Your task to perform on an android device: toggle data saver in the chrome app Image 0: 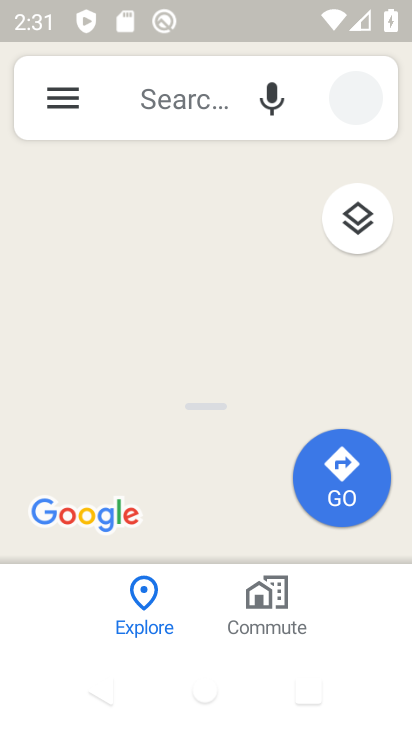
Step 0: press home button
Your task to perform on an android device: toggle data saver in the chrome app Image 1: 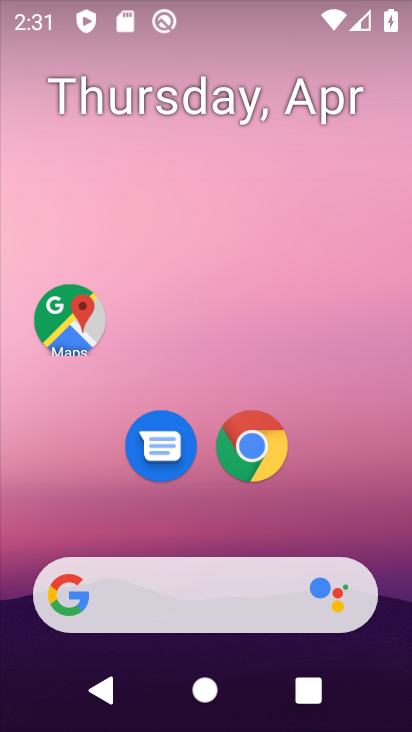
Step 1: drag from (189, 636) to (192, 191)
Your task to perform on an android device: toggle data saver in the chrome app Image 2: 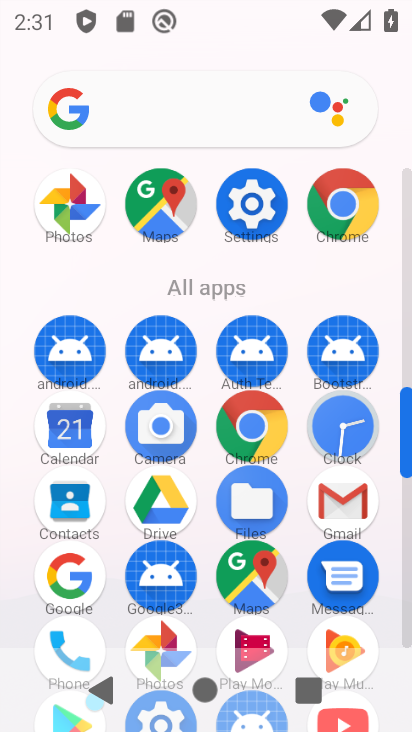
Step 2: click (341, 194)
Your task to perform on an android device: toggle data saver in the chrome app Image 3: 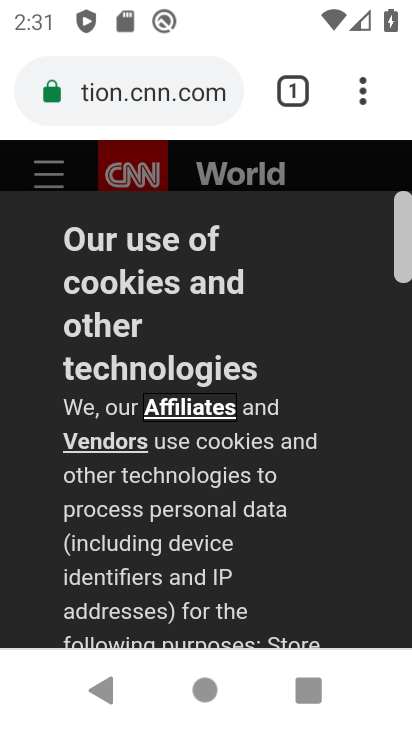
Step 3: click (360, 93)
Your task to perform on an android device: toggle data saver in the chrome app Image 4: 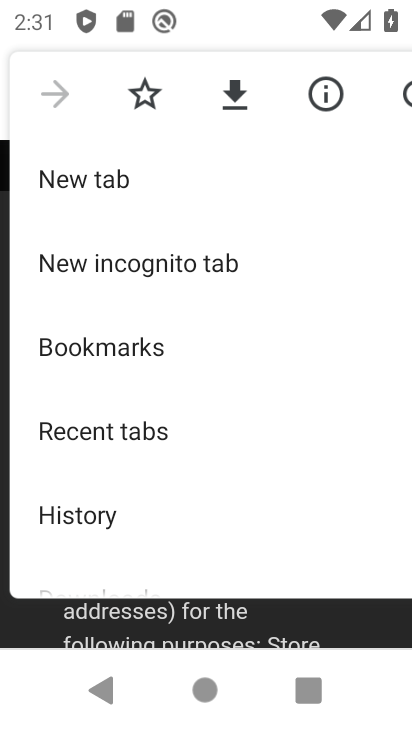
Step 4: drag from (184, 494) to (208, 288)
Your task to perform on an android device: toggle data saver in the chrome app Image 5: 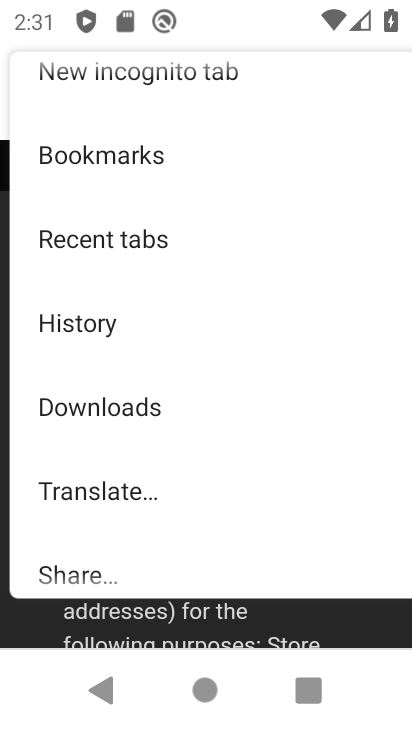
Step 5: drag from (108, 492) to (152, 302)
Your task to perform on an android device: toggle data saver in the chrome app Image 6: 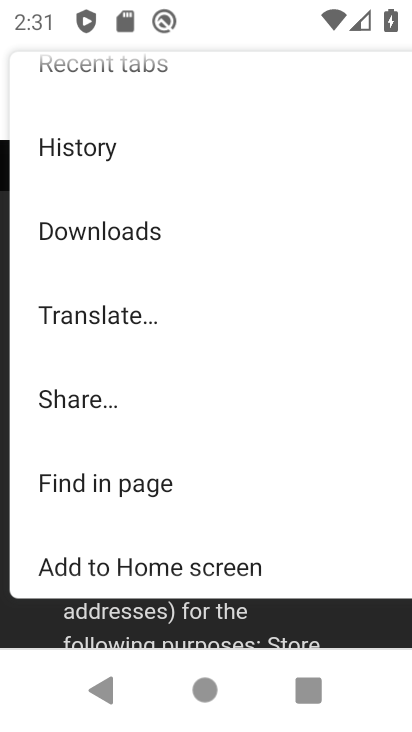
Step 6: drag from (103, 500) to (158, 263)
Your task to perform on an android device: toggle data saver in the chrome app Image 7: 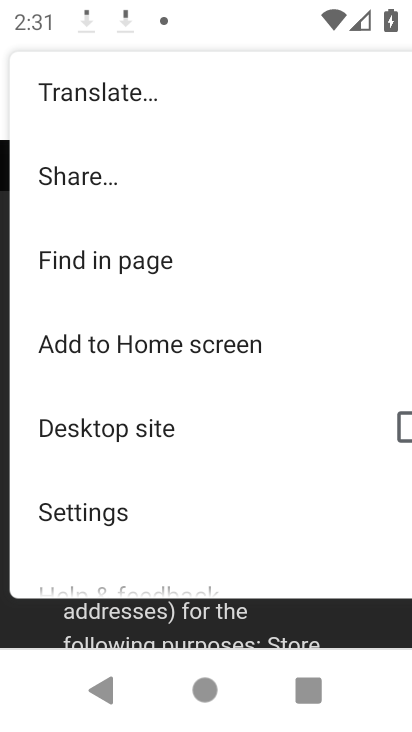
Step 7: click (84, 504)
Your task to perform on an android device: toggle data saver in the chrome app Image 8: 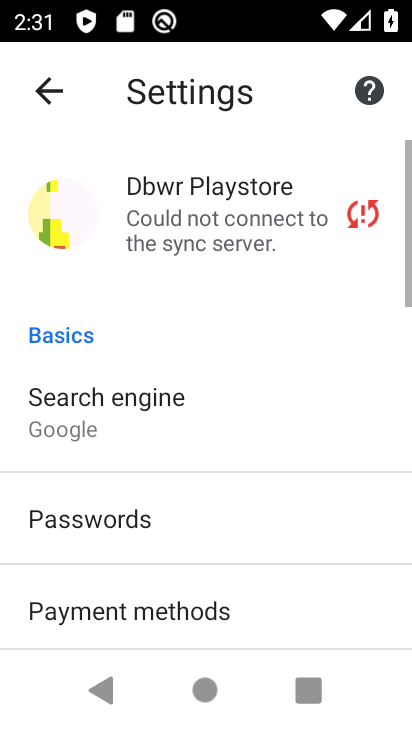
Step 8: drag from (118, 474) to (207, 147)
Your task to perform on an android device: toggle data saver in the chrome app Image 9: 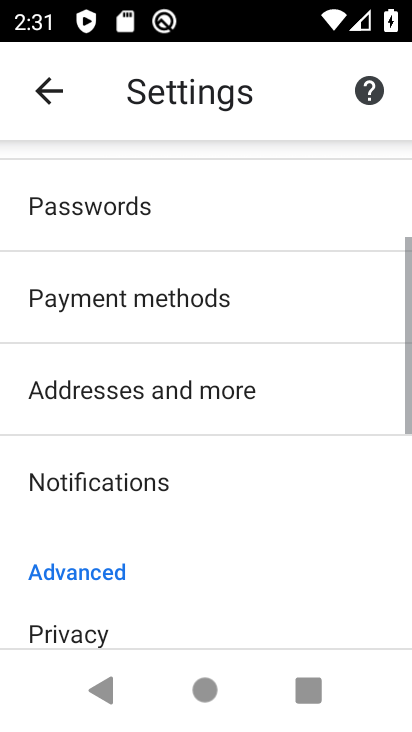
Step 9: drag from (111, 510) to (182, 242)
Your task to perform on an android device: toggle data saver in the chrome app Image 10: 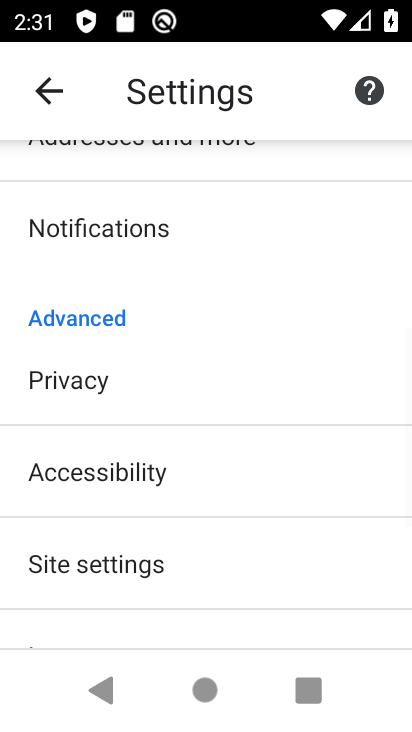
Step 10: drag from (115, 535) to (179, 290)
Your task to perform on an android device: toggle data saver in the chrome app Image 11: 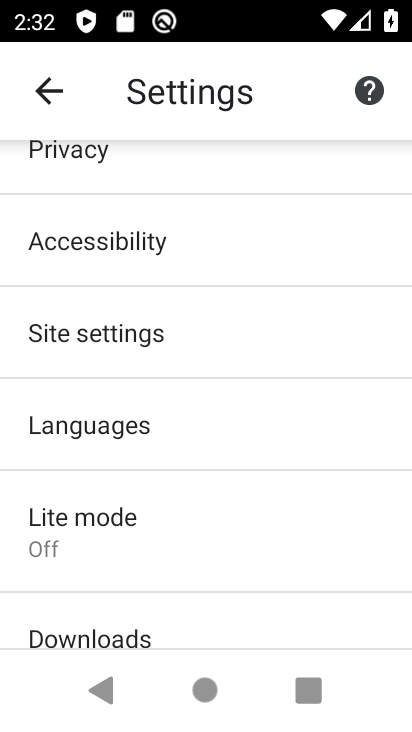
Step 11: drag from (125, 540) to (176, 348)
Your task to perform on an android device: toggle data saver in the chrome app Image 12: 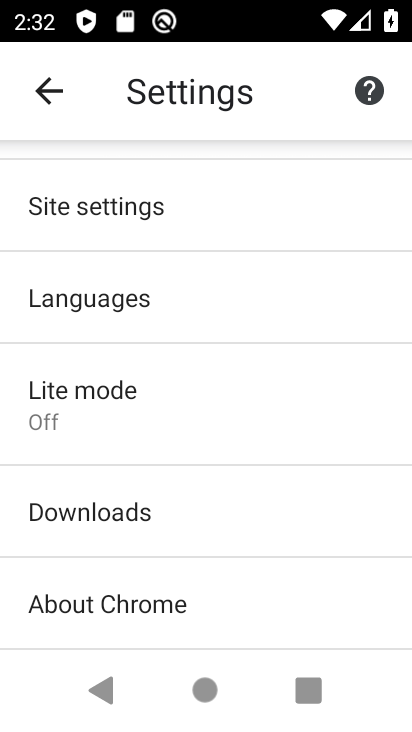
Step 12: click (101, 399)
Your task to perform on an android device: toggle data saver in the chrome app Image 13: 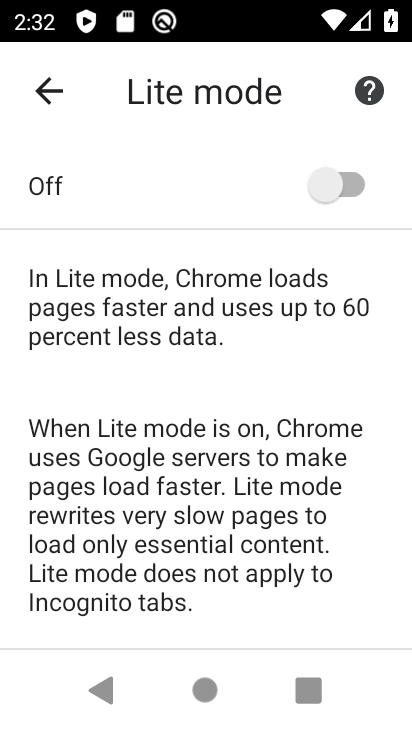
Step 13: click (342, 184)
Your task to perform on an android device: toggle data saver in the chrome app Image 14: 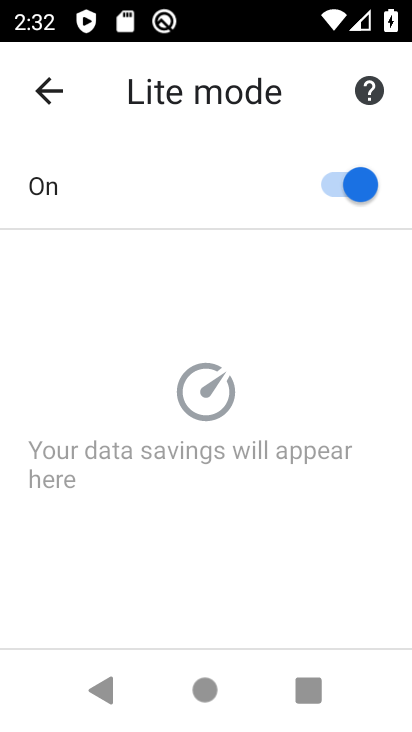
Step 14: task complete